Your task to perform on an android device: toggle javascript in the chrome app Image 0: 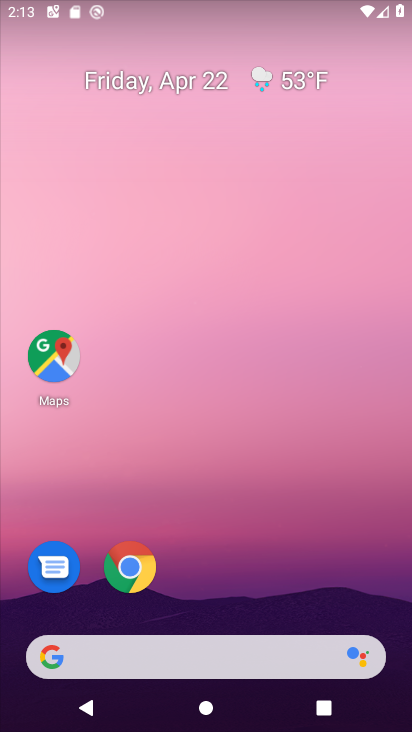
Step 0: click (128, 569)
Your task to perform on an android device: toggle javascript in the chrome app Image 1: 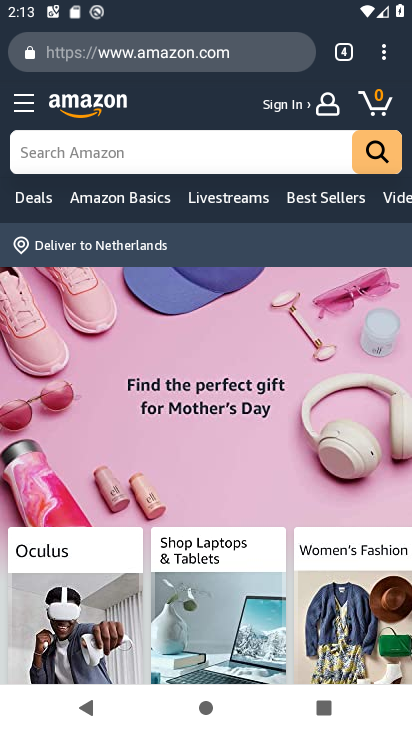
Step 1: drag from (381, 57) to (298, 609)
Your task to perform on an android device: toggle javascript in the chrome app Image 2: 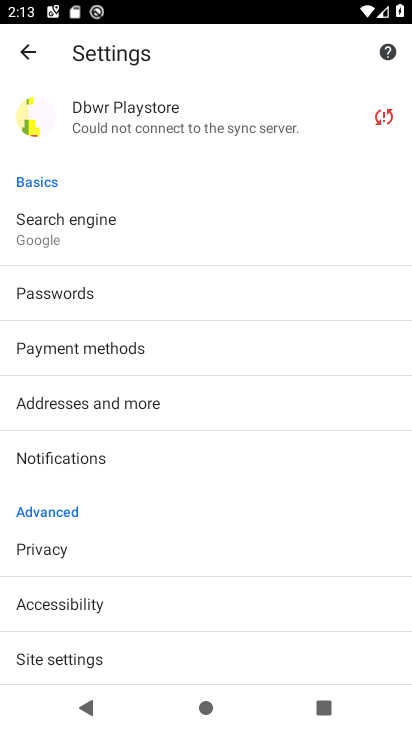
Step 2: click (98, 650)
Your task to perform on an android device: toggle javascript in the chrome app Image 3: 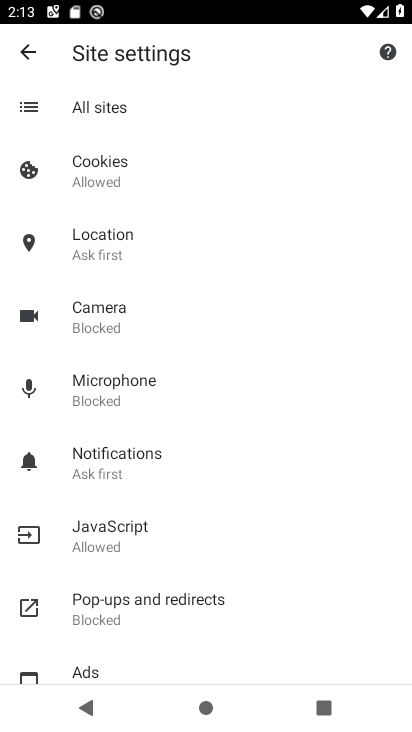
Step 3: click (246, 522)
Your task to perform on an android device: toggle javascript in the chrome app Image 4: 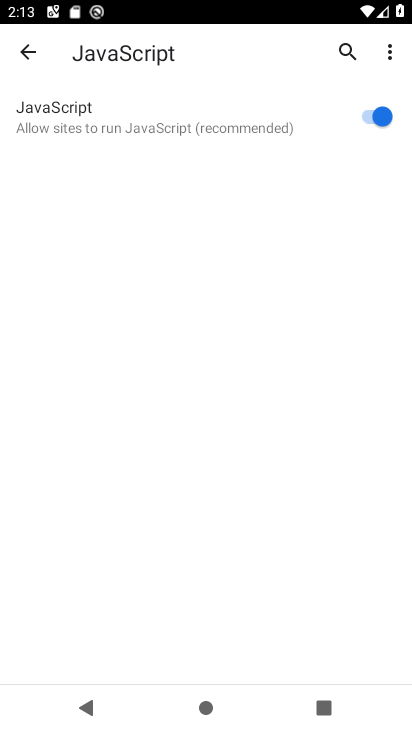
Step 4: click (368, 116)
Your task to perform on an android device: toggle javascript in the chrome app Image 5: 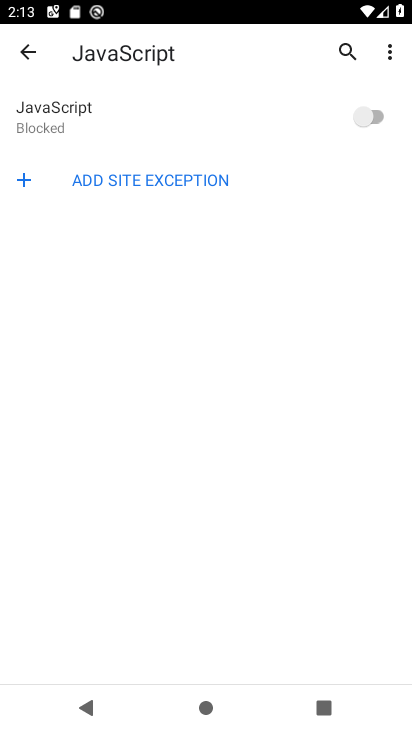
Step 5: task complete